Your task to perform on an android device: Show me popular videos on Youtube Image 0: 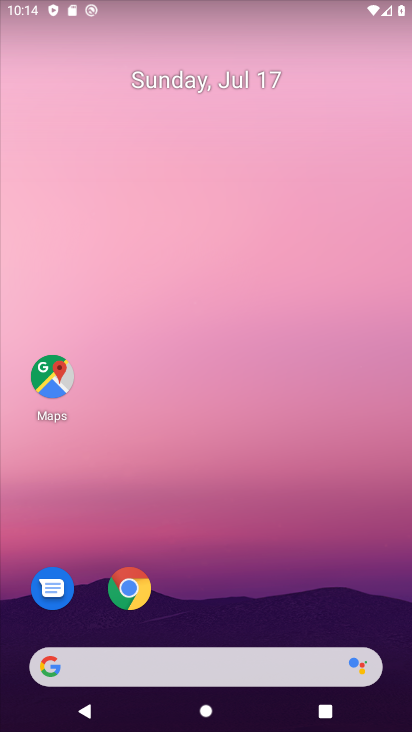
Step 0: drag from (181, 631) to (240, 64)
Your task to perform on an android device: Show me popular videos on Youtube Image 1: 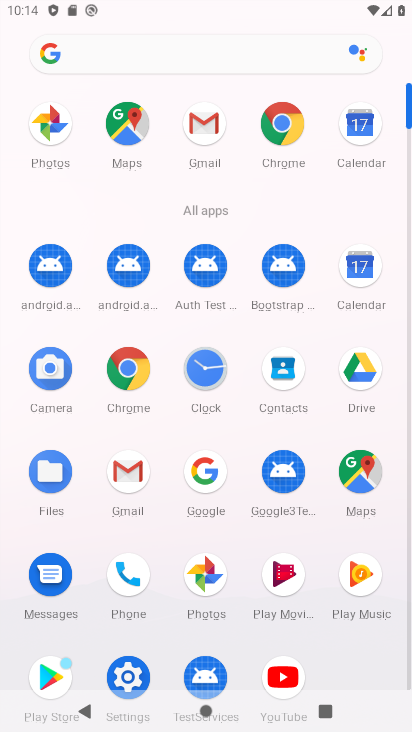
Step 1: click (274, 674)
Your task to perform on an android device: Show me popular videos on Youtube Image 2: 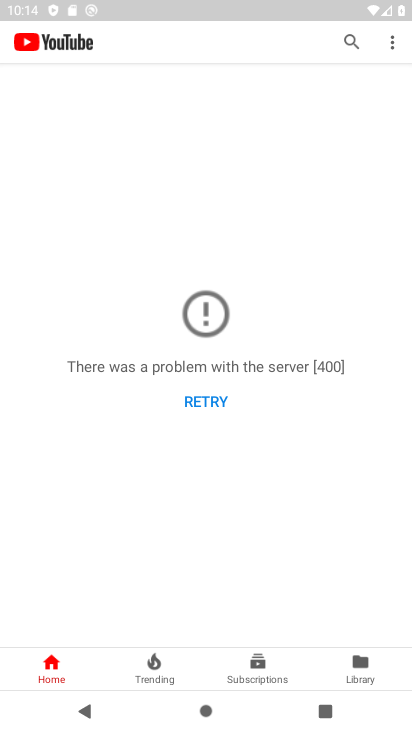
Step 2: click (359, 668)
Your task to perform on an android device: Show me popular videos on Youtube Image 3: 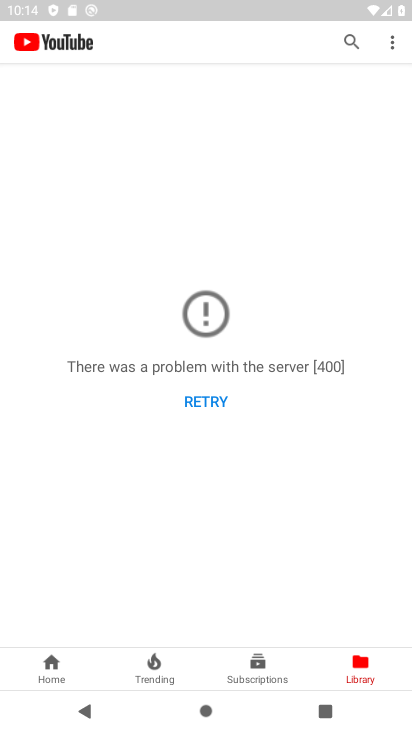
Step 3: click (360, 667)
Your task to perform on an android device: Show me popular videos on Youtube Image 4: 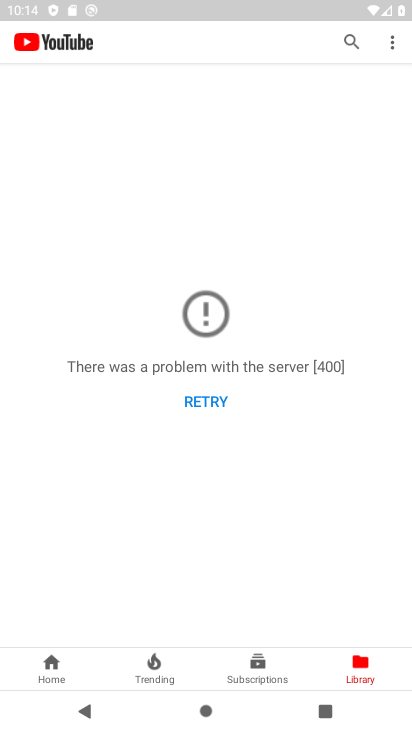
Step 4: task complete